Your task to perform on an android device: turn off notifications in google photos Image 0: 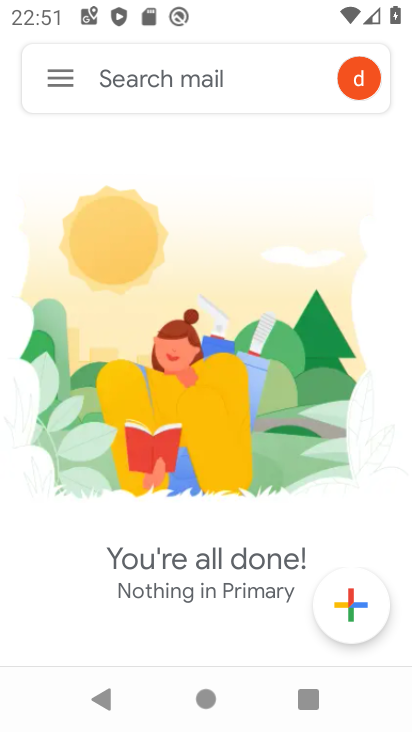
Step 0: press home button
Your task to perform on an android device: turn off notifications in google photos Image 1: 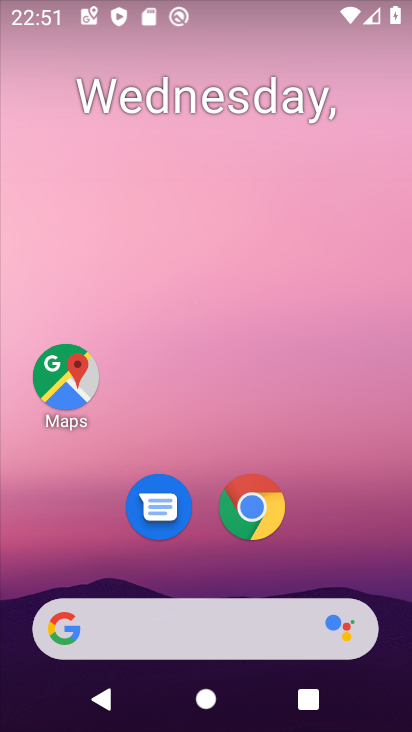
Step 1: drag from (308, 536) to (317, 151)
Your task to perform on an android device: turn off notifications in google photos Image 2: 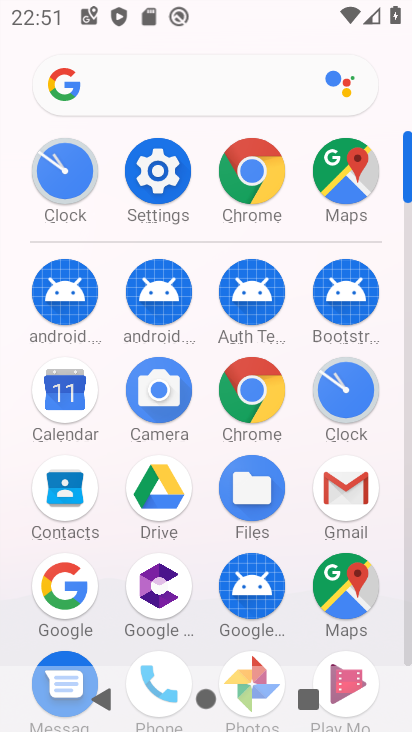
Step 2: drag from (269, 556) to (304, 264)
Your task to perform on an android device: turn off notifications in google photos Image 3: 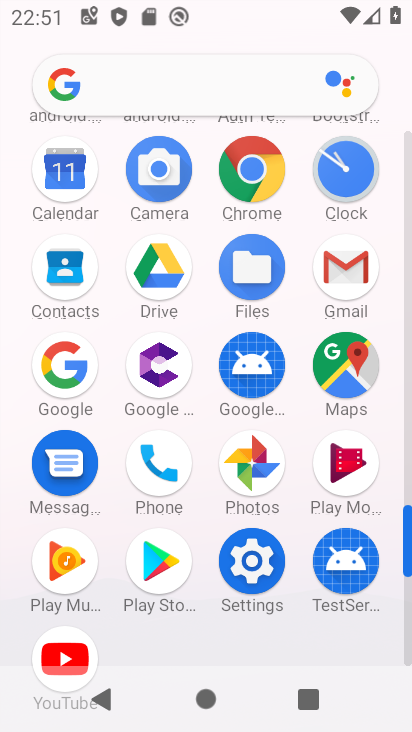
Step 3: click (241, 468)
Your task to perform on an android device: turn off notifications in google photos Image 4: 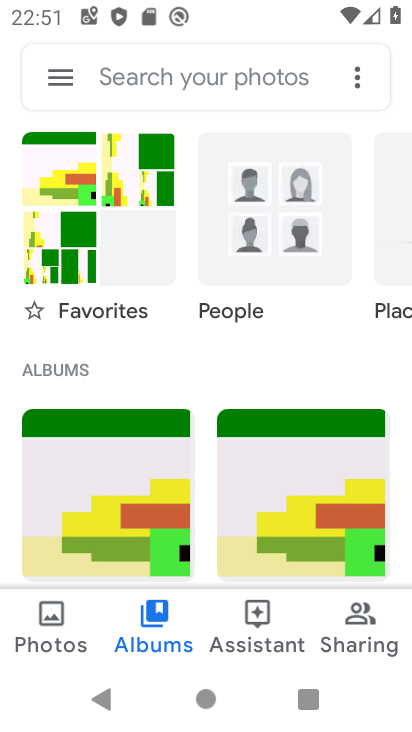
Step 4: click (51, 72)
Your task to perform on an android device: turn off notifications in google photos Image 5: 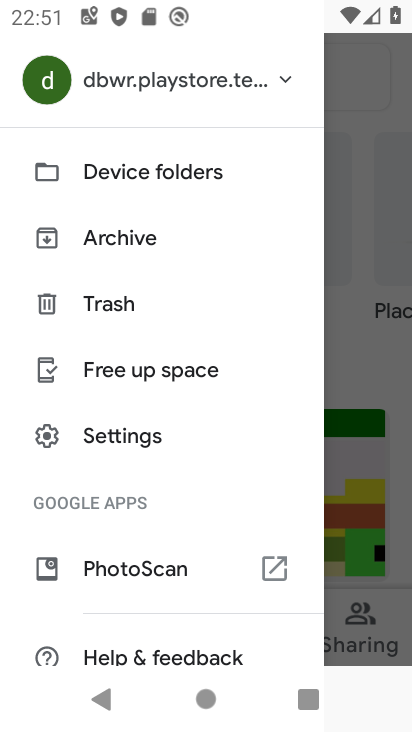
Step 5: click (133, 438)
Your task to perform on an android device: turn off notifications in google photos Image 6: 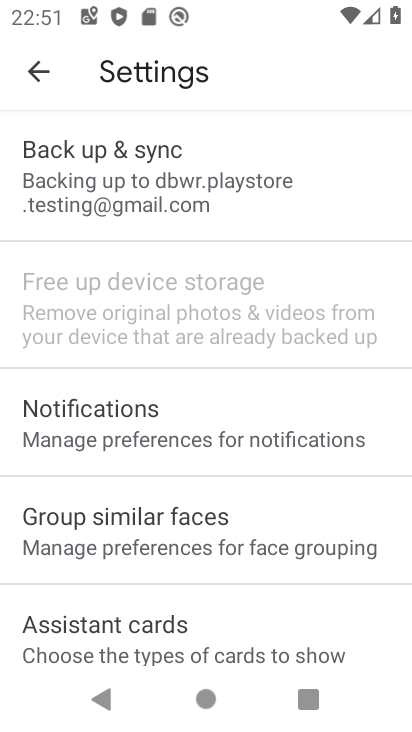
Step 6: click (172, 420)
Your task to perform on an android device: turn off notifications in google photos Image 7: 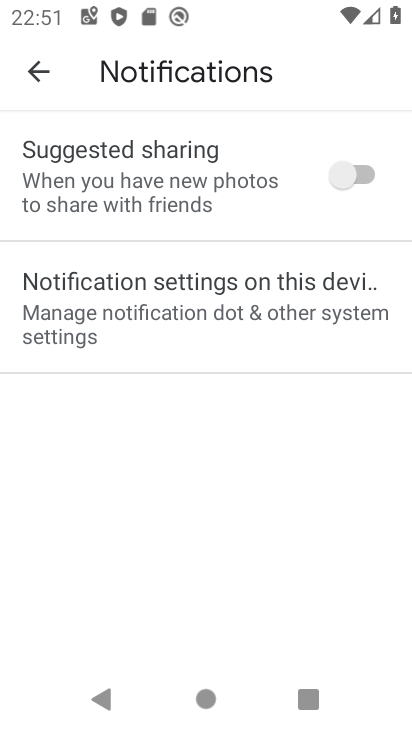
Step 7: click (222, 297)
Your task to perform on an android device: turn off notifications in google photos Image 8: 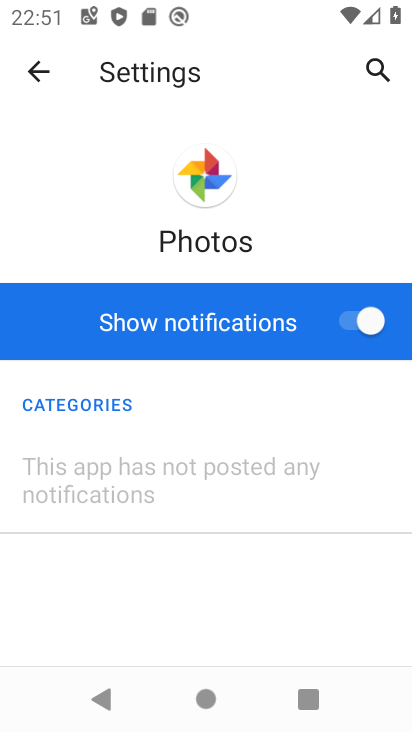
Step 8: click (342, 320)
Your task to perform on an android device: turn off notifications in google photos Image 9: 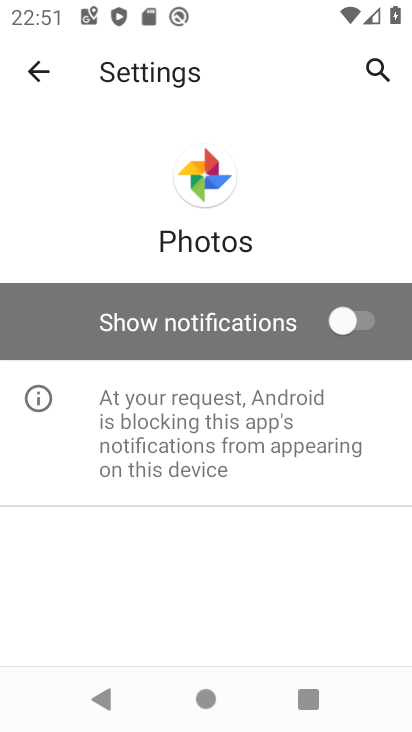
Step 9: task complete